Your task to perform on an android device: What's the weather today? Image 0: 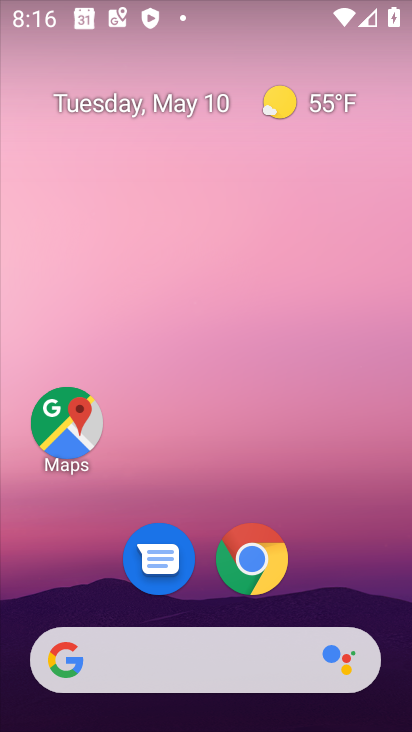
Step 0: click (281, 105)
Your task to perform on an android device: What's the weather today? Image 1: 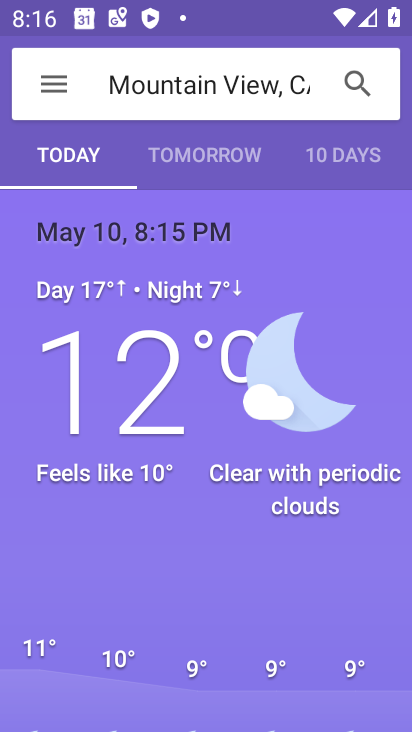
Step 1: task complete